Your task to perform on an android device: turn on priority inbox in the gmail app Image 0: 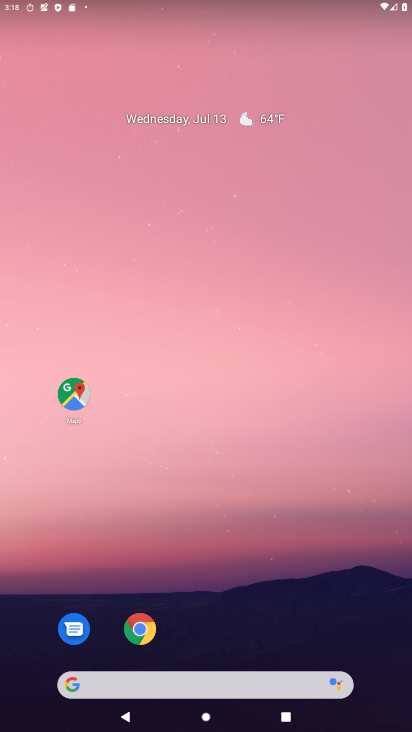
Step 0: drag from (307, 680) to (259, 2)
Your task to perform on an android device: turn on priority inbox in the gmail app Image 1: 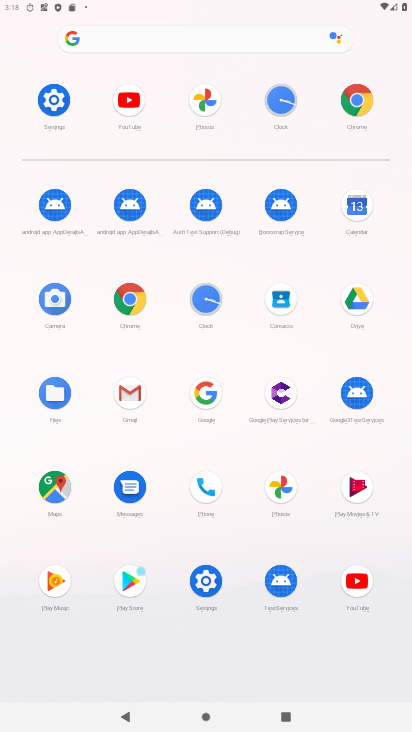
Step 1: click (137, 394)
Your task to perform on an android device: turn on priority inbox in the gmail app Image 2: 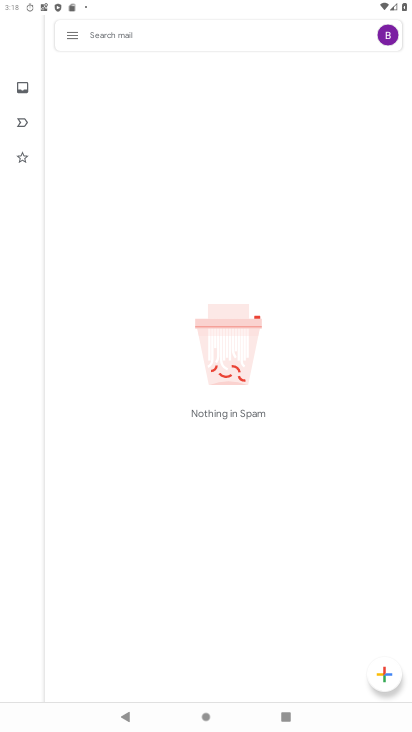
Step 2: click (72, 26)
Your task to perform on an android device: turn on priority inbox in the gmail app Image 3: 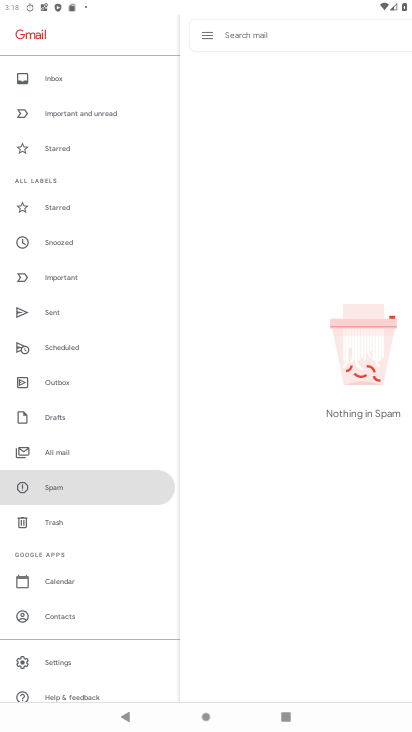
Step 3: click (54, 659)
Your task to perform on an android device: turn on priority inbox in the gmail app Image 4: 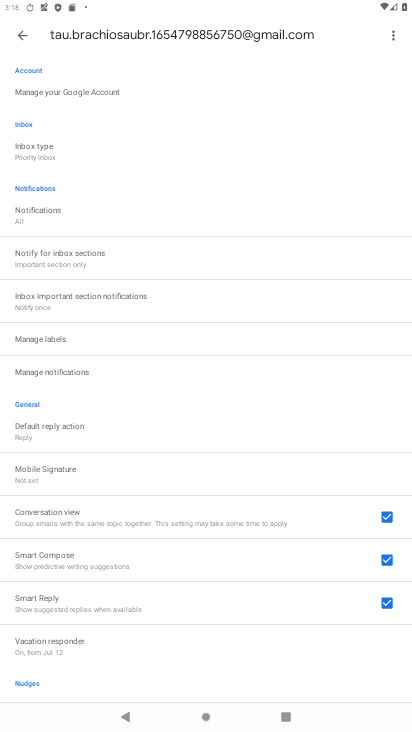
Step 4: task complete